Your task to perform on an android device: Open the stopwatch Image 0: 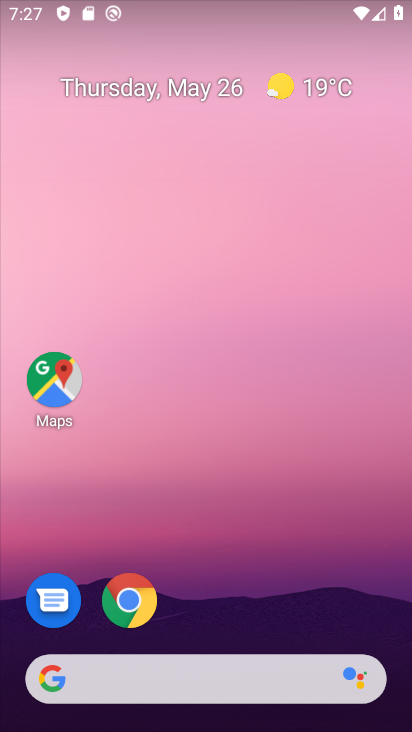
Step 0: drag from (283, 690) to (209, 154)
Your task to perform on an android device: Open the stopwatch Image 1: 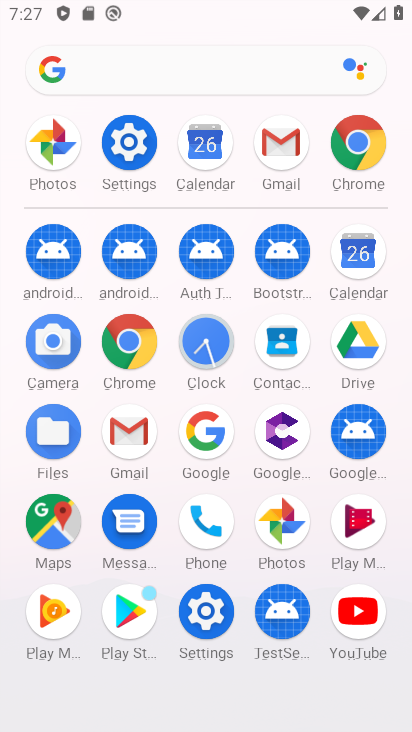
Step 1: click (210, 357)
Your task to perform on an android device: Open the stopwatch Image 2: 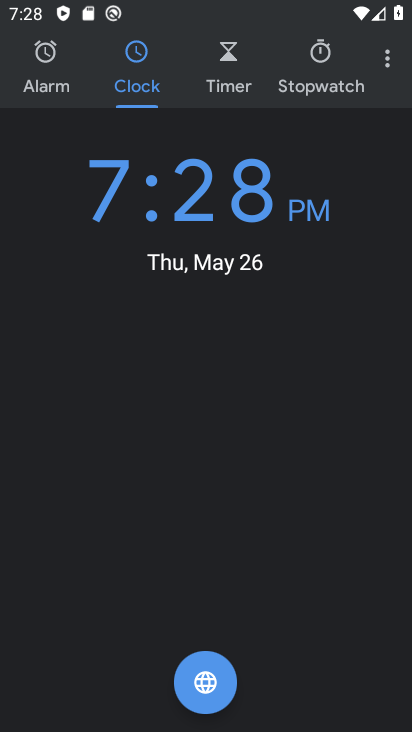
Step 2: click (315, 75)
Your task to perform on an android device: Open the stopwatch Image 3: 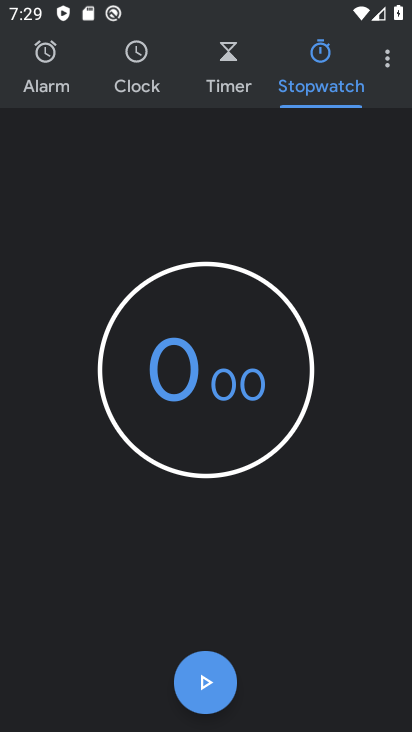
Step 3: task complete